Your task to perform on an android device: Open the phone app and click the voicemail tab. Image 0: 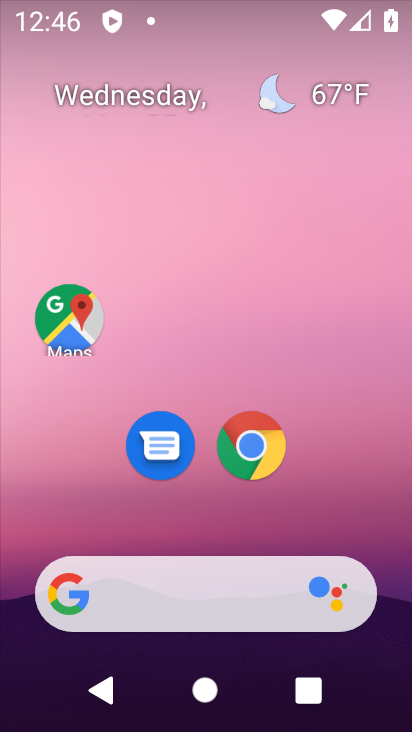
Step 0: drag from (401, 567) to (239, 5)
Your task to perform on an android device: Open the phone app and click the voicemail tab. Image 1: 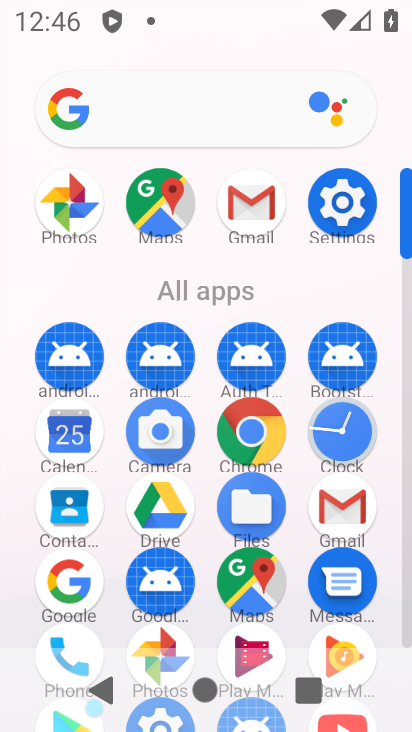
Step 1: click (71, 639)
Your task to perform on an android device: Open the phone app and click the voicemail tab. Image 2: 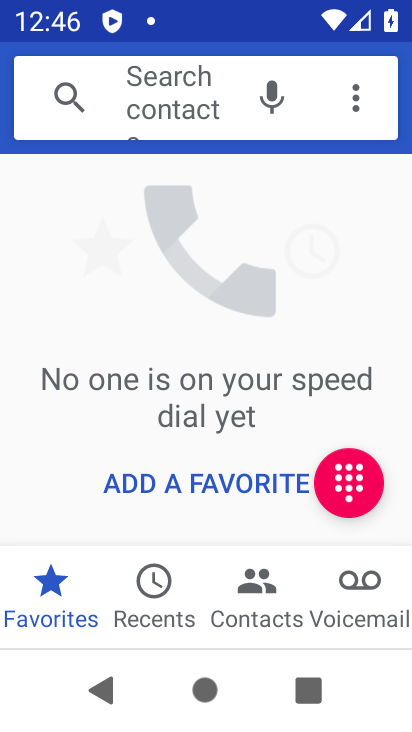
Step 2: click (369, 607)
Your task to perform on an android device: Open the phone app and click the voicemail tab. Image 3: 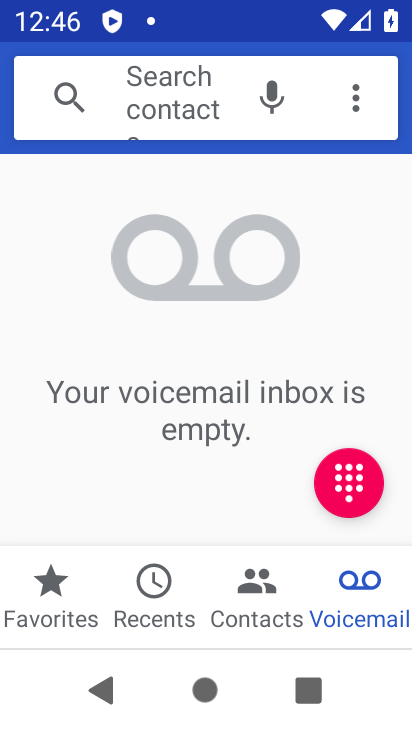
Step 3: task complete